Your task to perform on an android device: Open Yahoo.com Image 0: 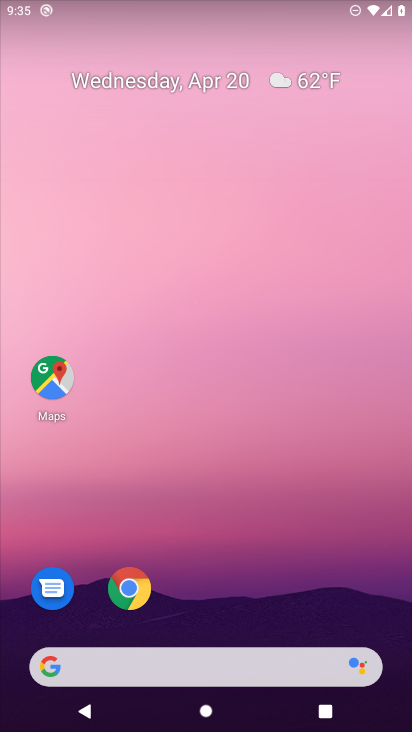
Step 0: drag from (220, 623) to (218, 100)
Your task to perform on an android device: Open Yahoo.com Image 1: 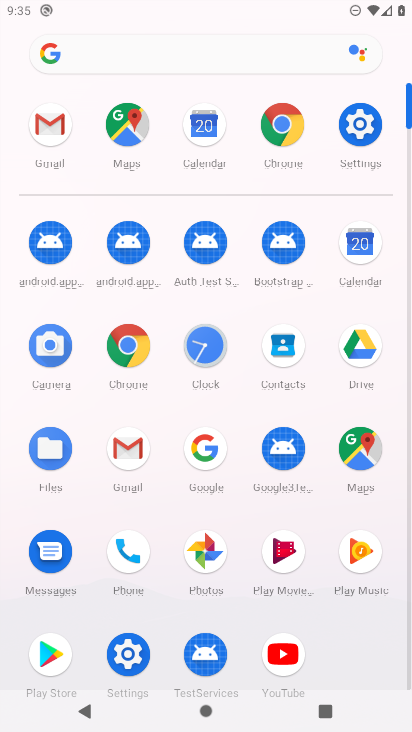
Step 1: click (279, 117)
Your task to perform on an android device: Open Yahoo.com Image 2: 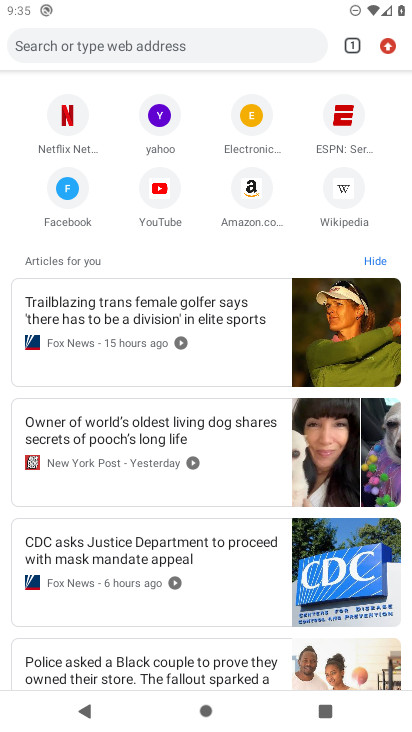
Step 2: click (158, 109)
Your task to perform on an android device: Open Yahoo.com Image 3: 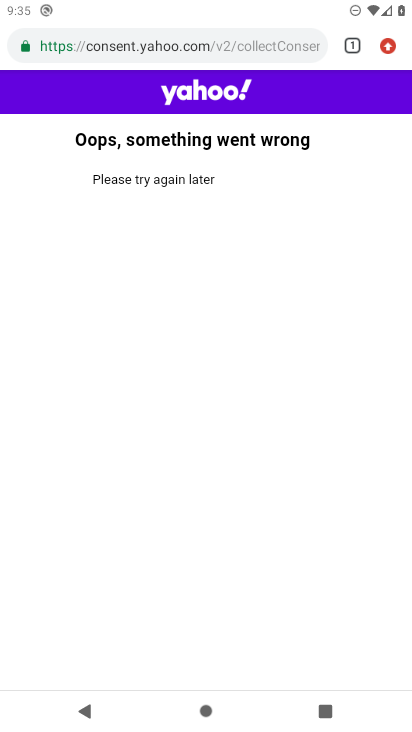
Step 3: task complete